Your task to perform on an android device: install app "Viber Messenger" Image 0: 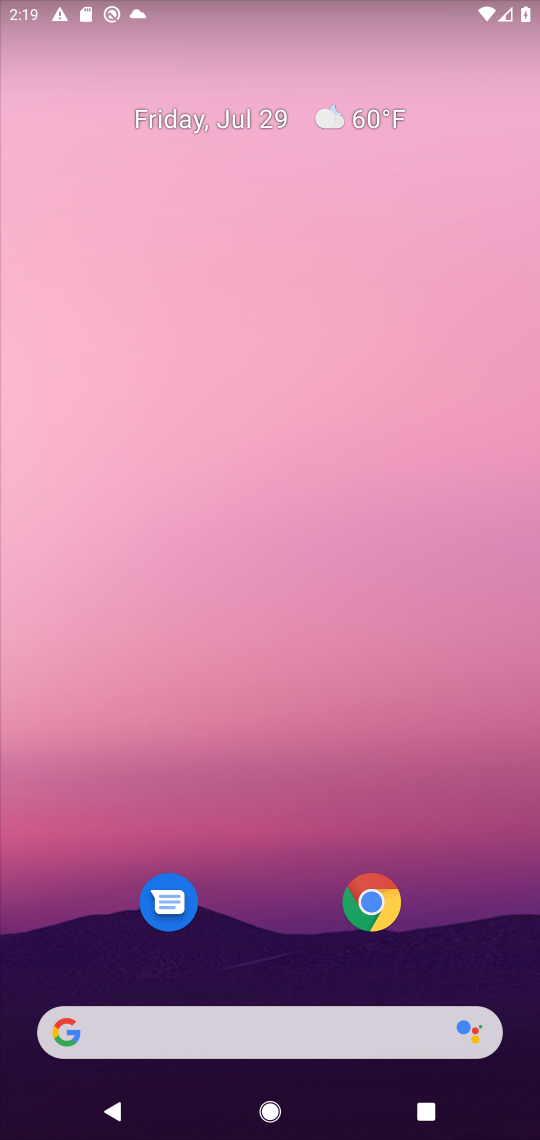
Step 0: drag from (270, 1034) to (325, 288)
Your task to perform on an android device: install app "Viber Messenger" Image 1: 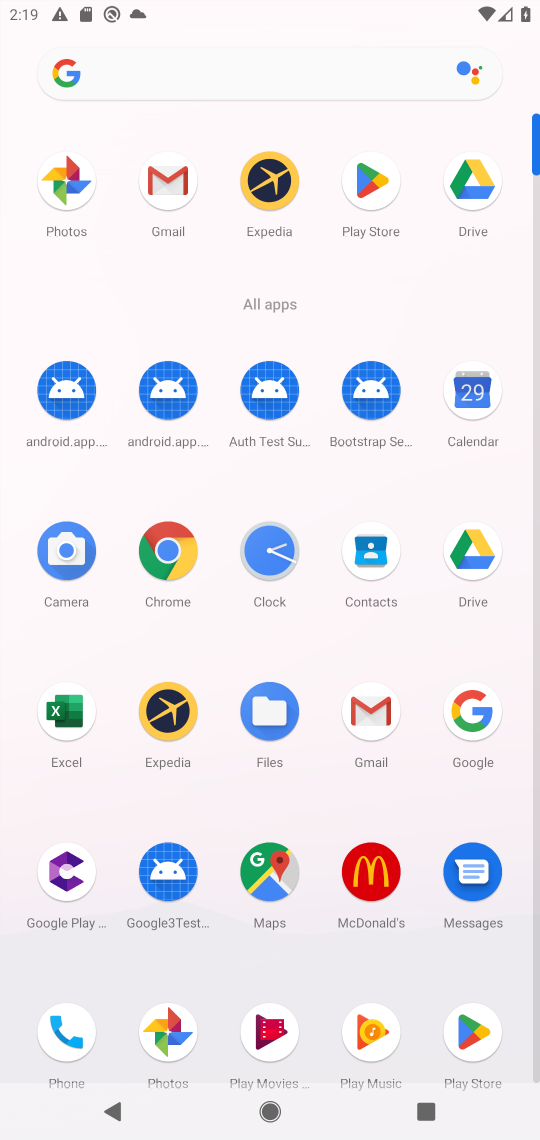
Step 1: drag from (220, 804) to (280, 590)
Your task to perform on an android device: install app "Viber Messenger" Image 2: 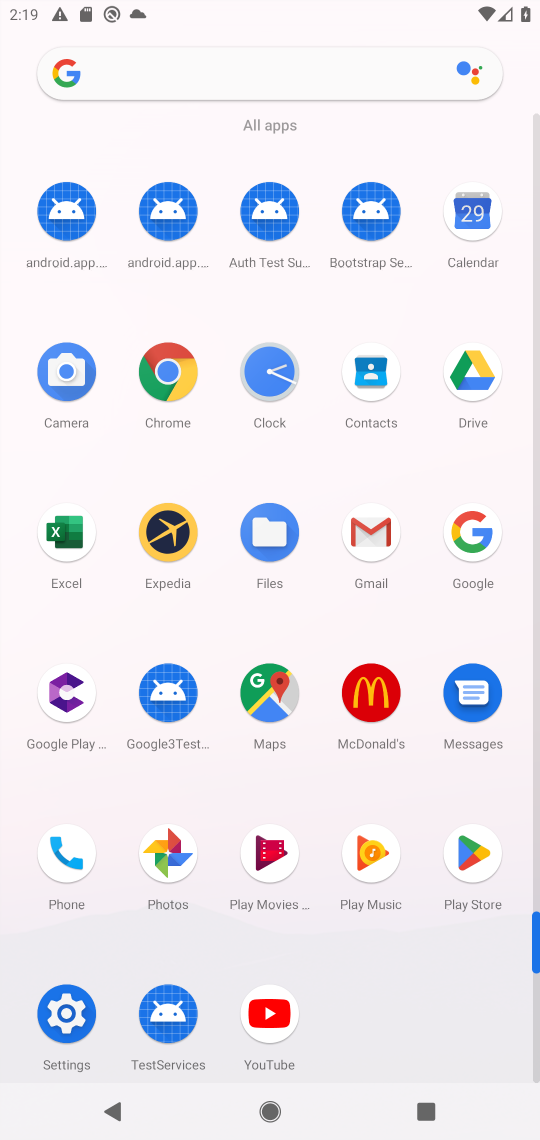
Step 2: click (480, 862)
Your task to perform on an android device: install app "Viber Messenger" Image 3: 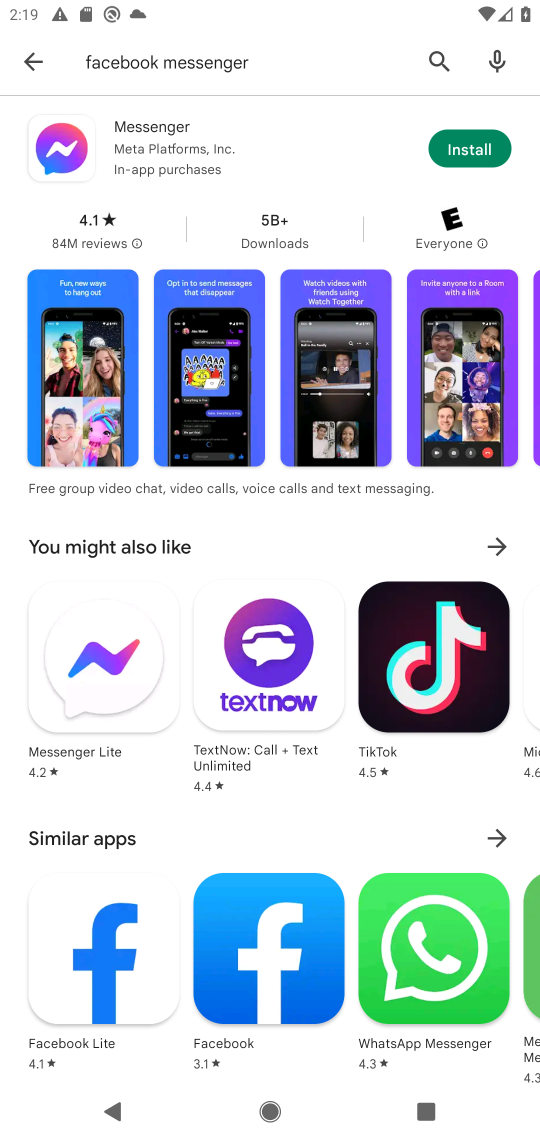
Step 3: click (31, 53)
Your task to perform on an android device: install app "Viber Messenger" Image 4: 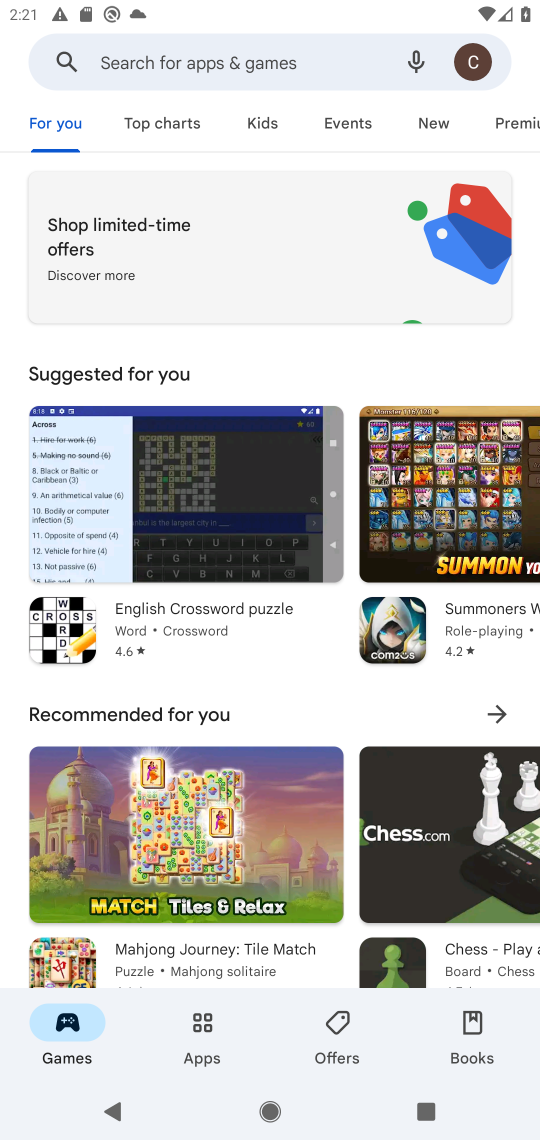
Step 4: type "Viber Messenger"
Your task to perform on an android device: install app "Viber Messenger" Image 5: 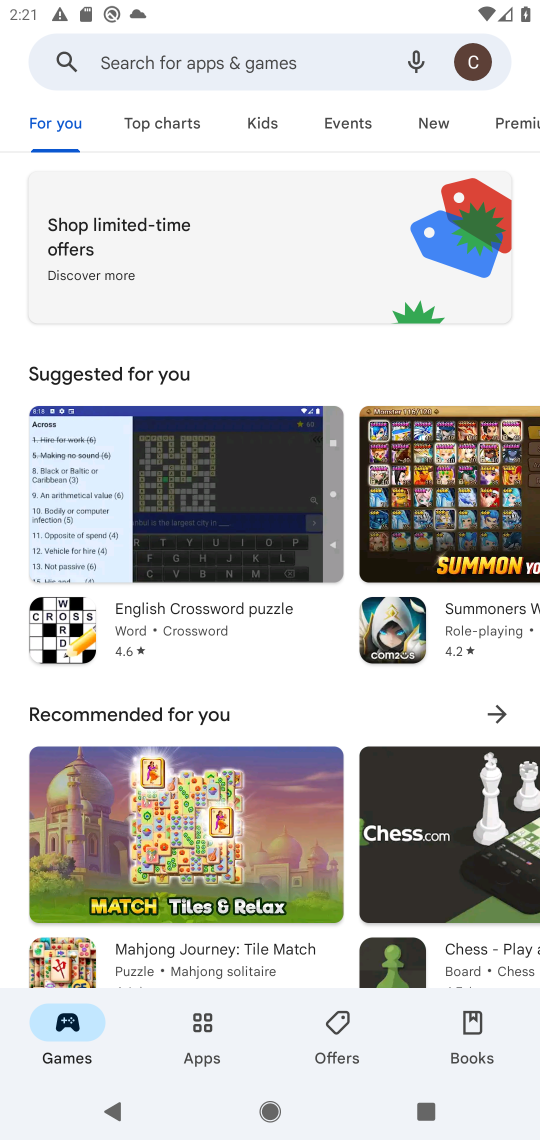
Step 5: click (324, 74)
Your task to perform on an android device: install app "Viber Messenger" Image 6: 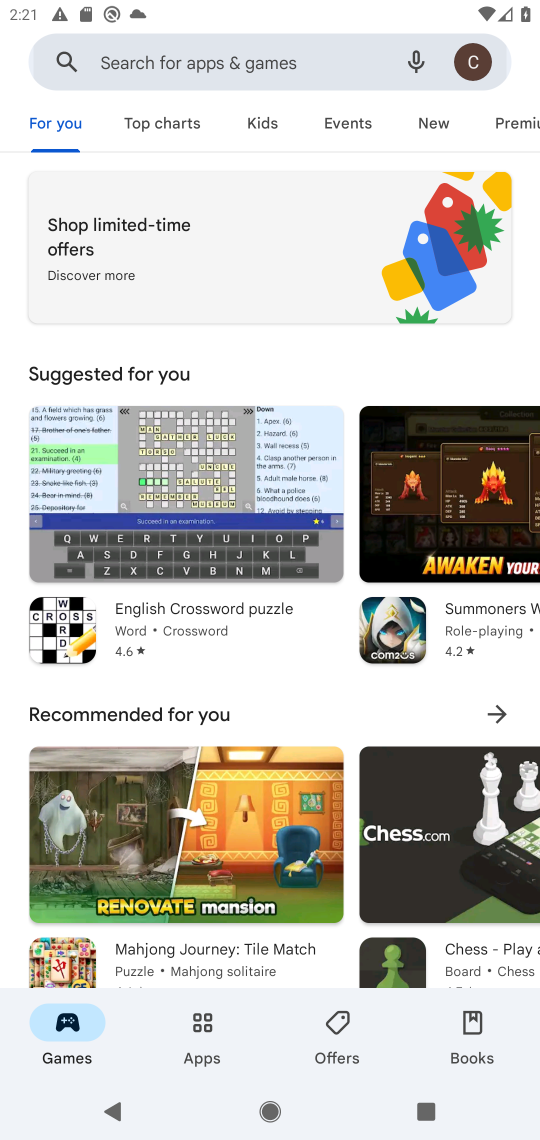
Step 6: click (193, 75)
Your task to perform on an android device: install app "Viber Messenger" Image 7: 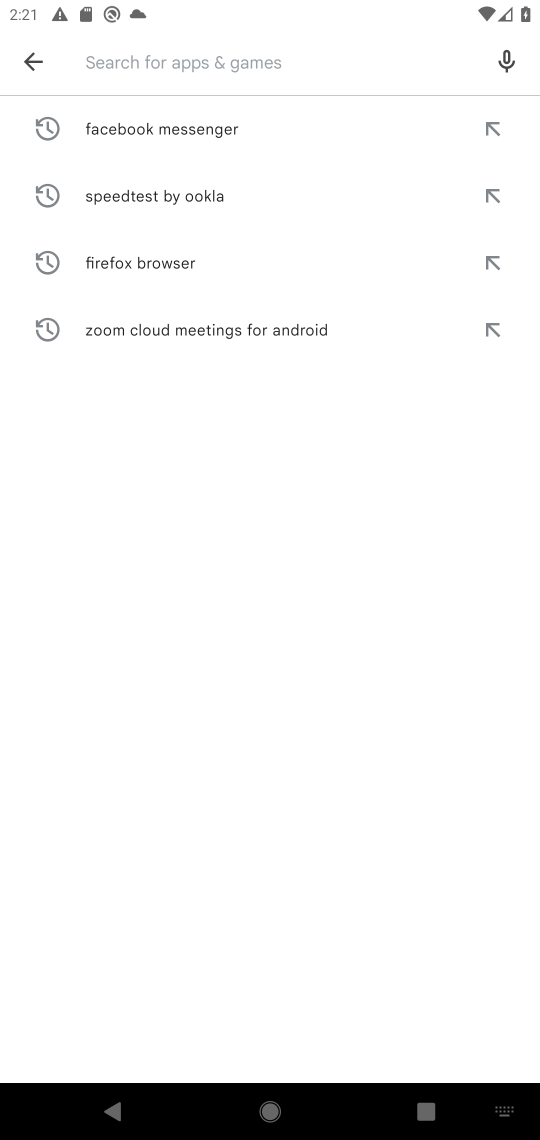
Step 7: type "Viber Messenger"
Your task to perform on an android device: install app "Viber Messenger" Image 8: 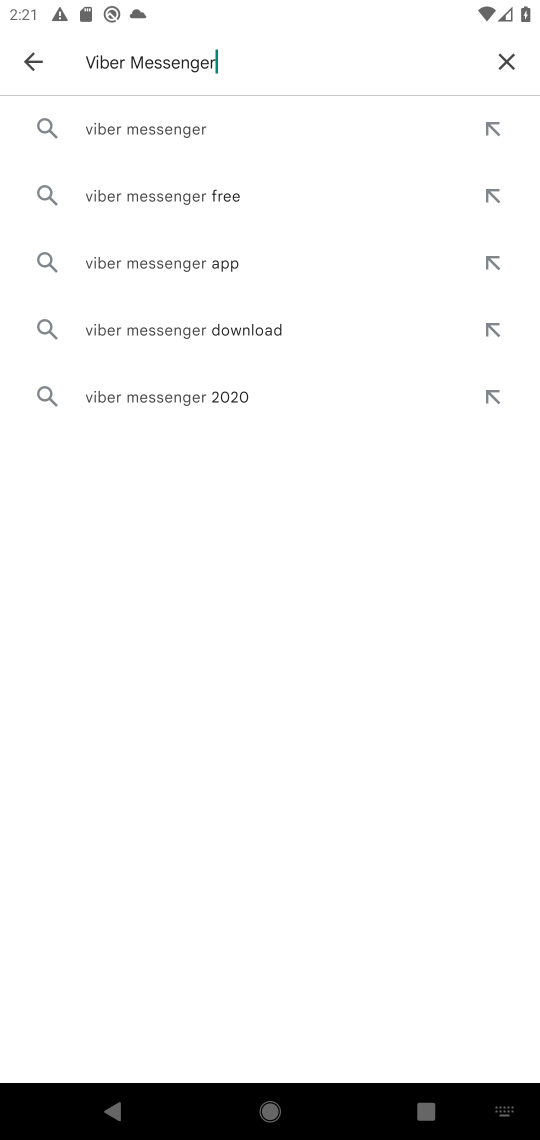
Step 8: click (149, 138)
Your task to perform on an android device: install app "Viber Messenger" Image 9: 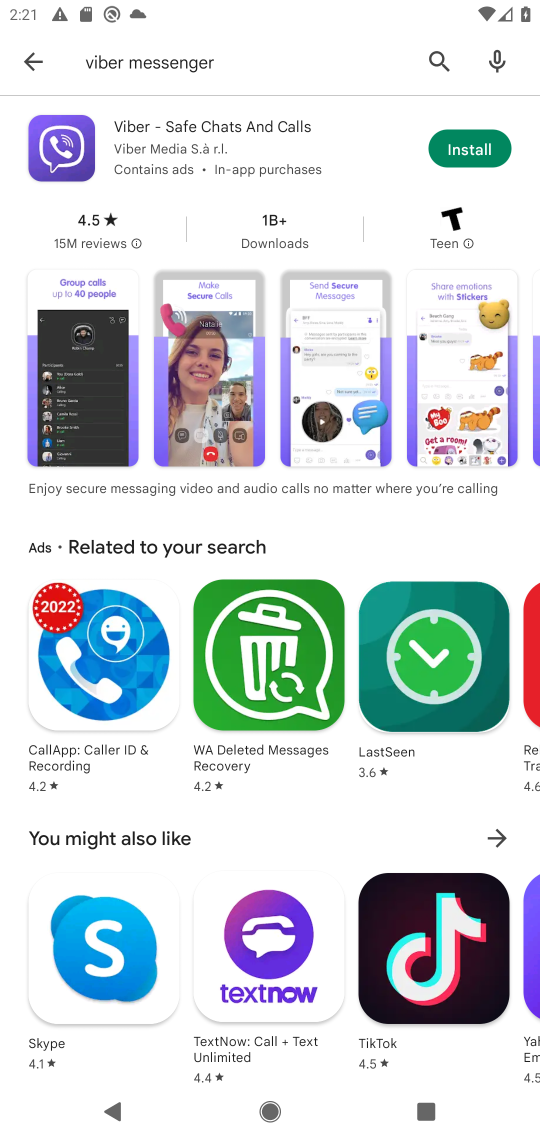
Step 9: click (486, 151)
Your task to perform on an android device: install app "Viber Messenger" Image 10: 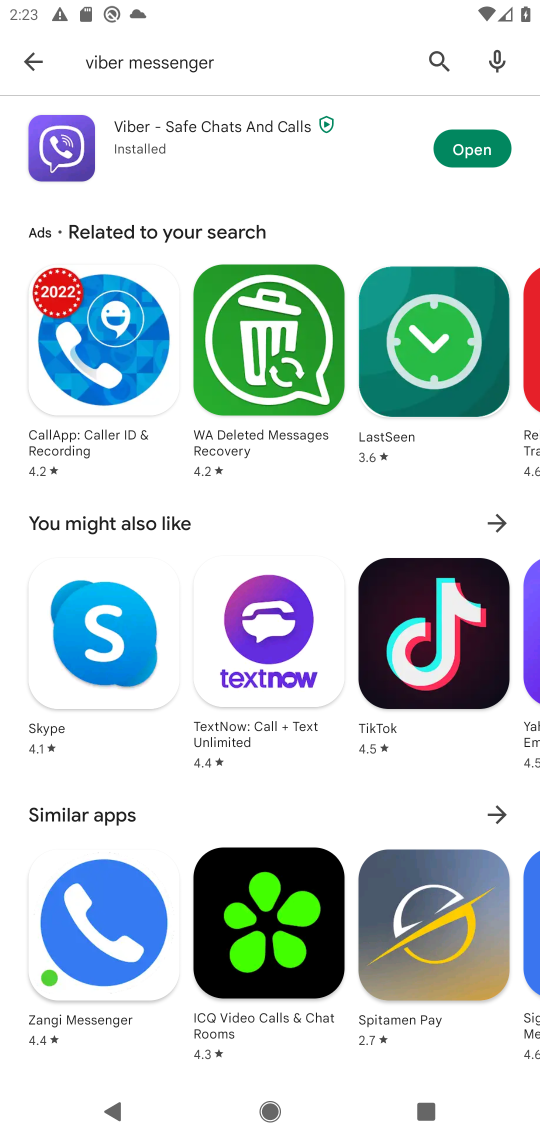
Step 10: task complete